Your task to perform on an android device: turn on showing notifications on the lock screen Image 0: 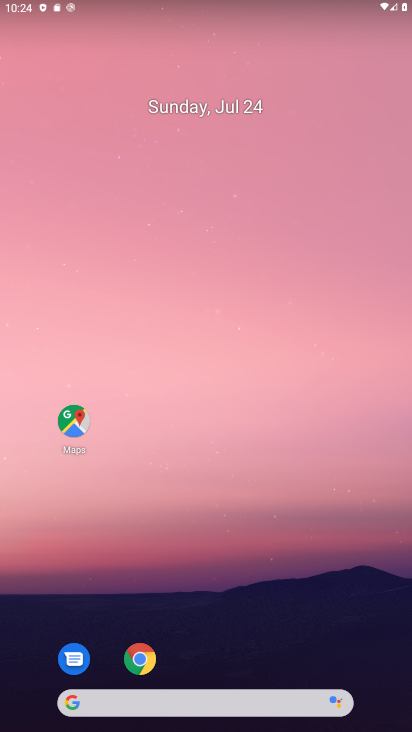
Step 0: press home button
Your task to perform on an android device: turn on showing notifications on the lock screen Image 1: 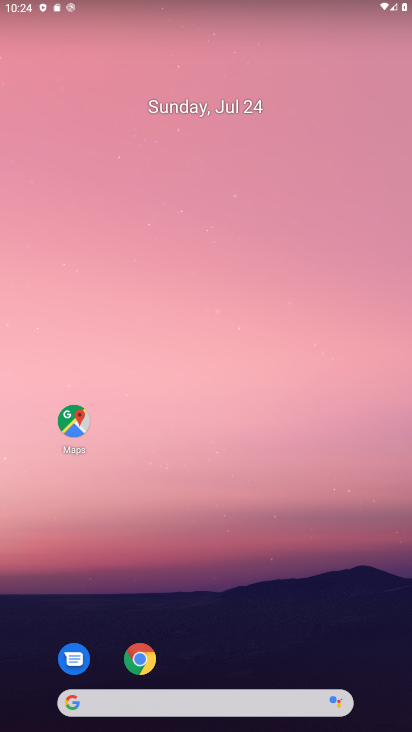
Step 1: drag from (269, 617) to (273, 143)
Your task to perform on an android device: turn on showing notifications on the lock screen Image 2: 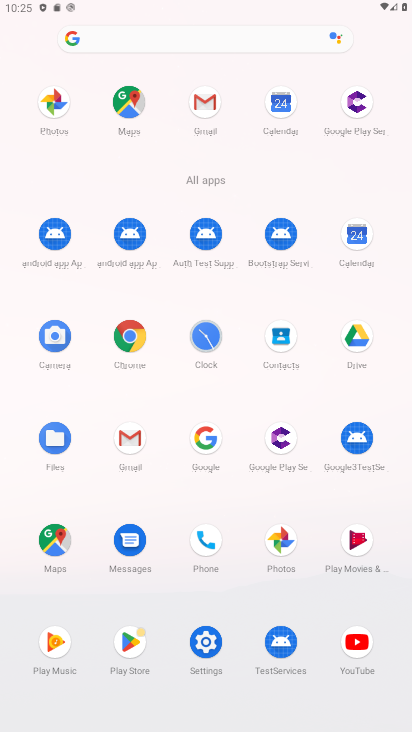
Step 2: click (208, 664)
Your task to perform on an android device: turn on showing notifications on the lock screen Image 3: 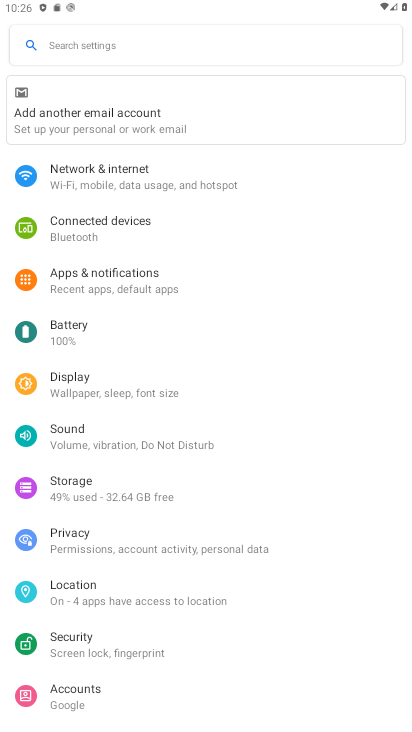
Step 3: click (149, 289)
Your task to perform on an android device: turn on showing notifications on the lock screen Image 4: 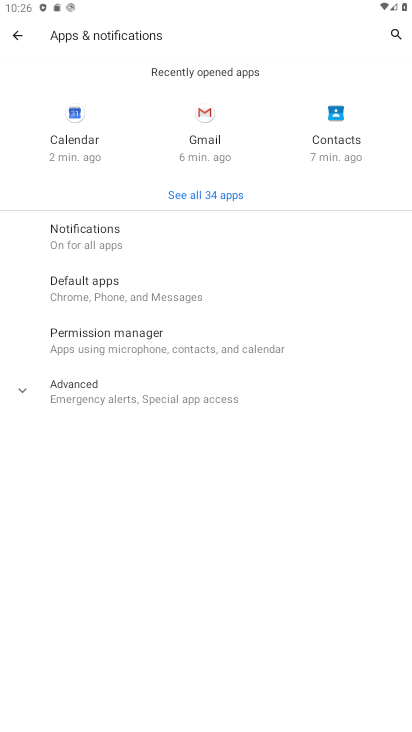
Step 4: click (113, 211)
Your task to perform on an android device: turn on showing notifications on the lock screen Image 5: 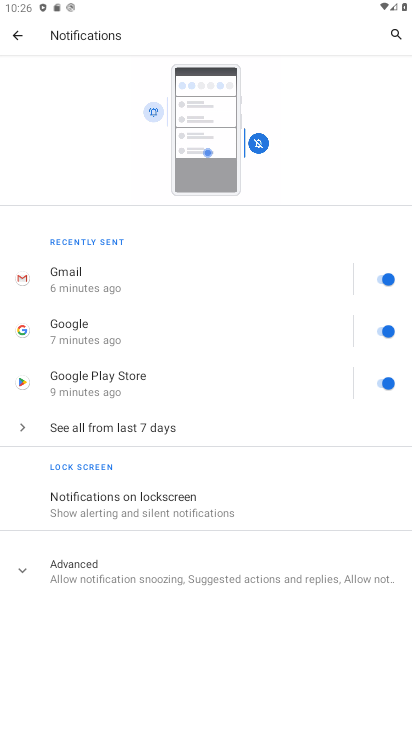
Step 5: drag from (126, 615) to (119, 427)
Your task to perform on an android device: turn on showing notifications on the lock screen Image 6: 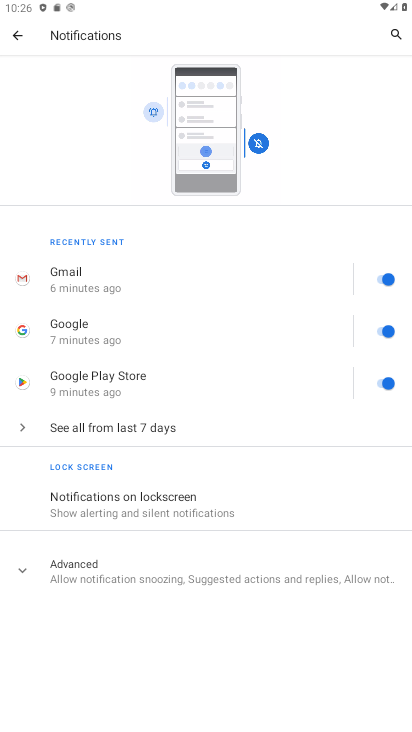
Step 6: click (96, 496)
Your task to perform on an android device: turn on showing notifications on the lock screen Image 7: 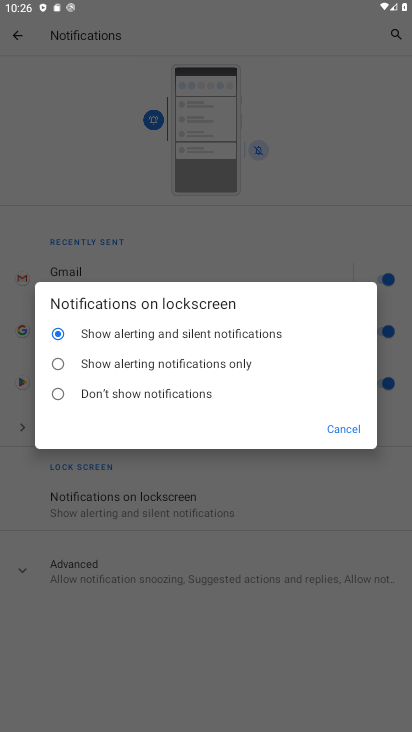
Step 7: click (131, 341)
Your task to perform on an android device: turn on showing notifications on the lock screen Image 8: 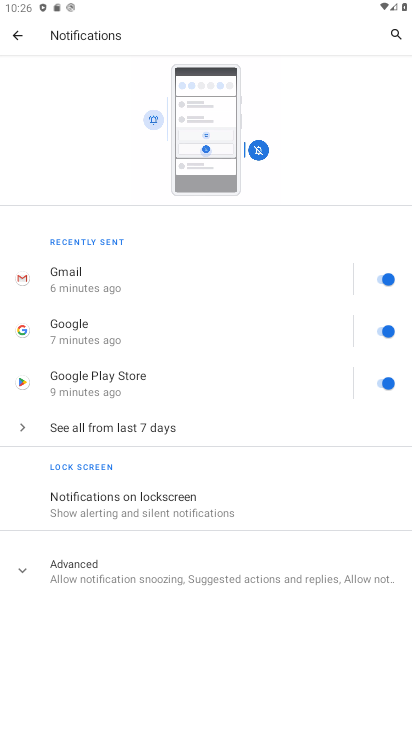
Step 8: task complete